Your task to perform on an android device: Open eBay Image 0: 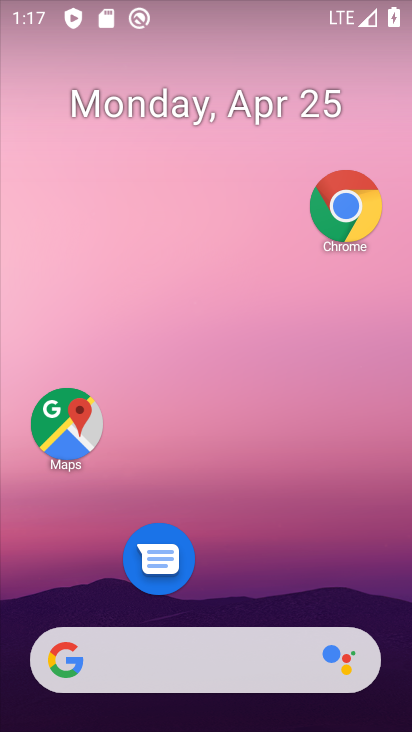
Step 0: click (184, 646)
Your task to perform on an android device: Open eBay Image 1: 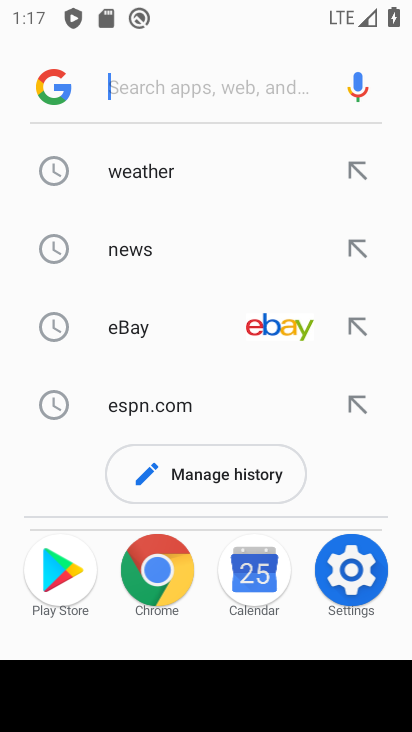
Step 1: click (157, 85)
Your task to perform on an android device: Open eBay Image 2: 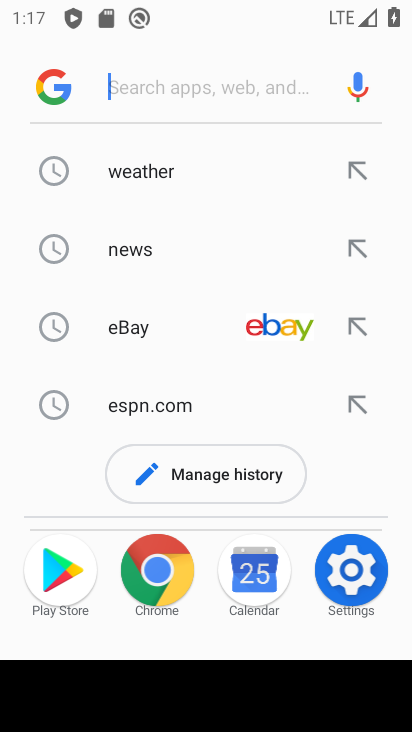
Step 2: click (132, 335)
Your task to perform on an android device: Open eBay Image 3: 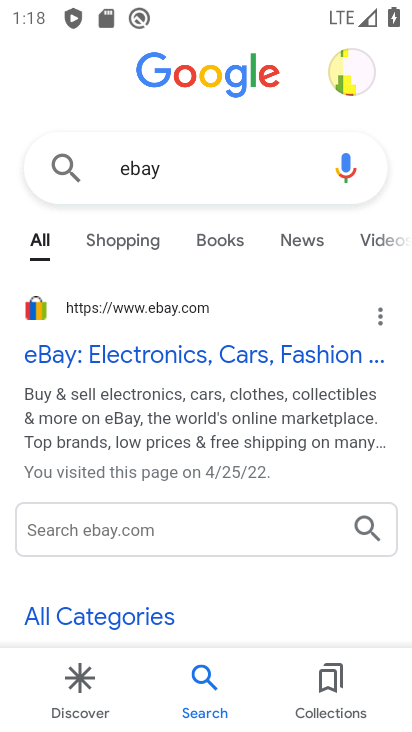
Step 3: click (126, 354)
Your task to perform on an android device: Open eBay Image 4: 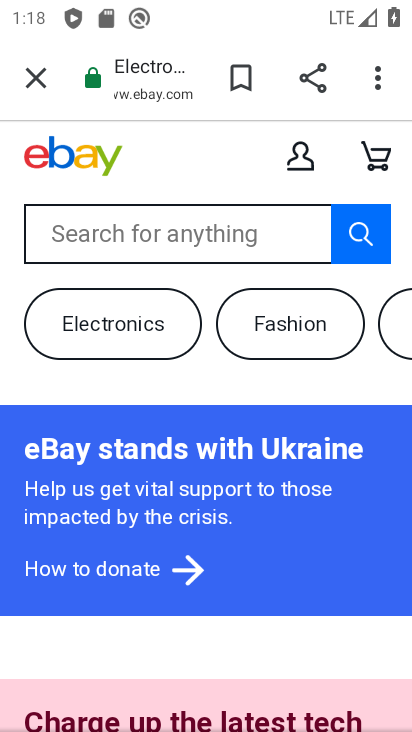
Step 4: task complete